Your task to perform on an android device: delete location history Image 0: 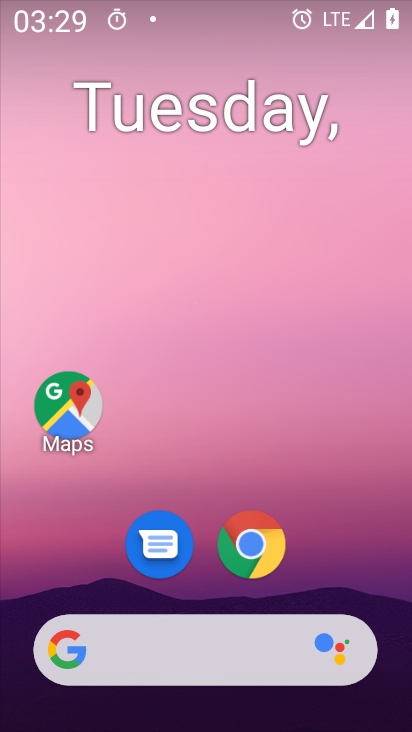
Step 0: drag from (339, 498) to (213, 11)
Your task to perform on an android device: delete location history Image 1: 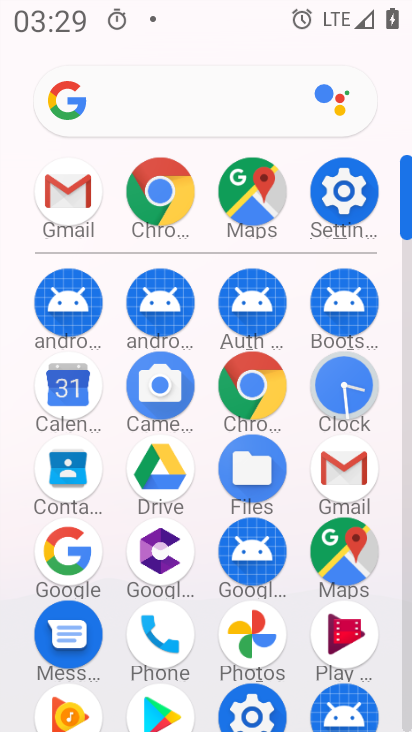
Step 1: drag from (11, 604) to (10, 253)
Your task to perform on an android device: delete location history Image 2: 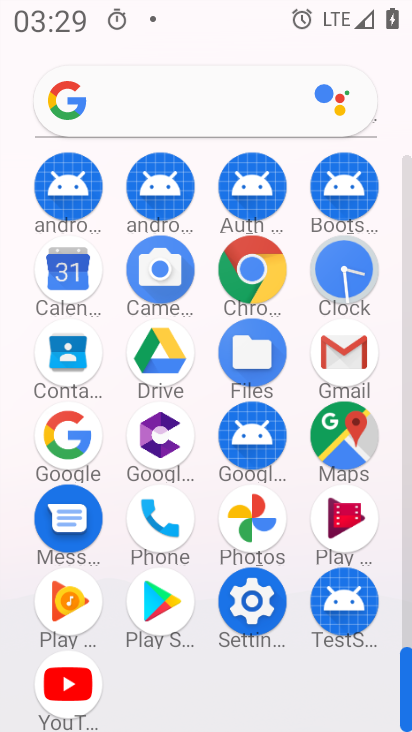
Step 2: click (254, 598)
Your task to perform on an android device: delete location history Image 3: 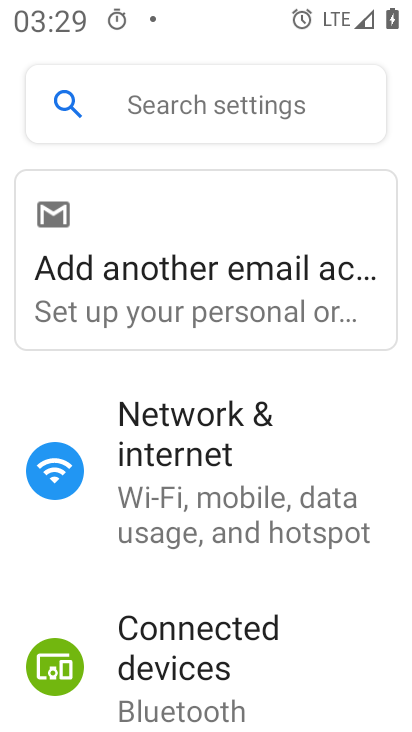
Step 3: drag from (311, 620) to (281, 143)
Your task to perform on an android device: delete location history Image 4: 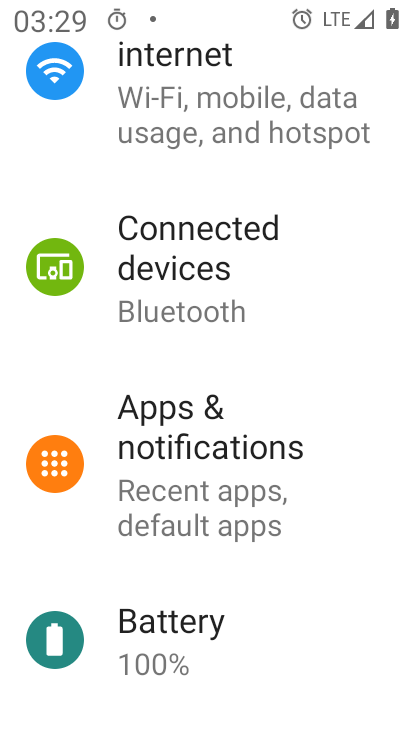
Step 4: drag from (264, 495) to (257, 149)
Your task to perform on an android device: delete location history Image 5: 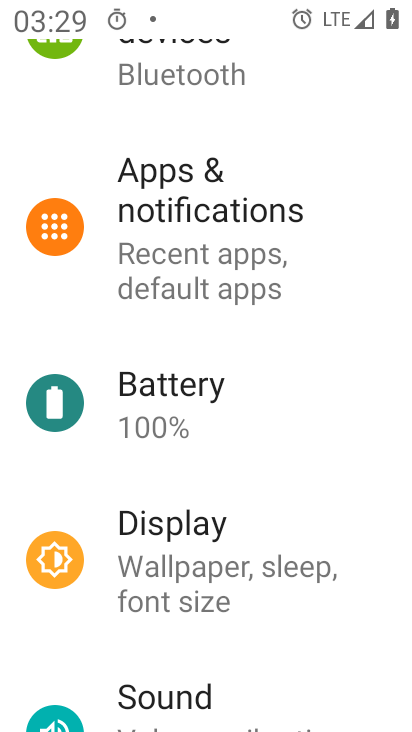
Step 5: drag from (262, 582) to (260, 152)
Your task to perform on an android device: delete location history Image 6: 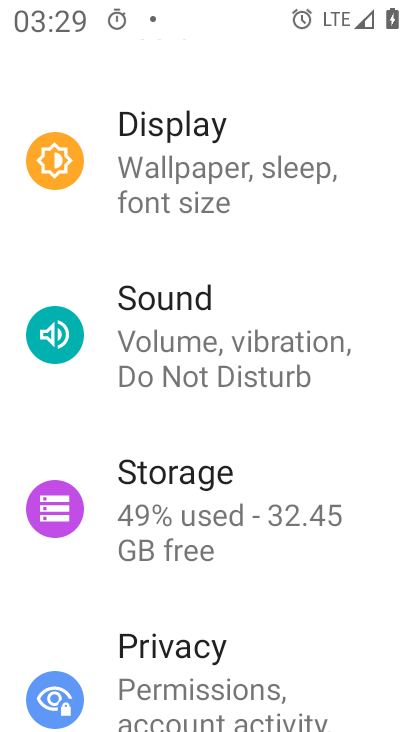
Step 6: drag from (263, 627) to (283, 177)
Your task to perform on an android device: delete location history Image 7: 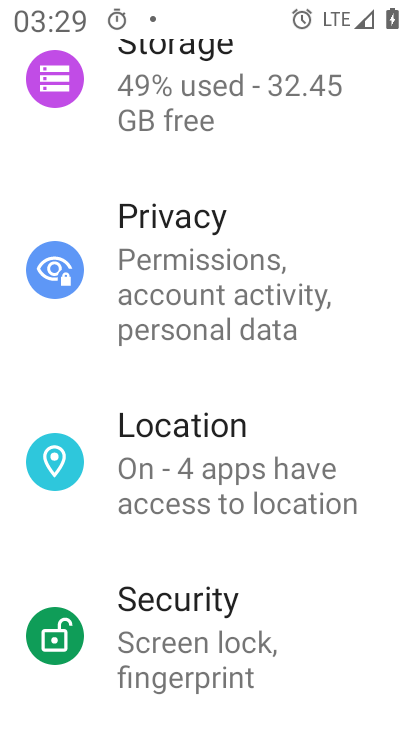
Step 7: click (200, 456)
Your task to perform on an android device: delete location history Image 8: 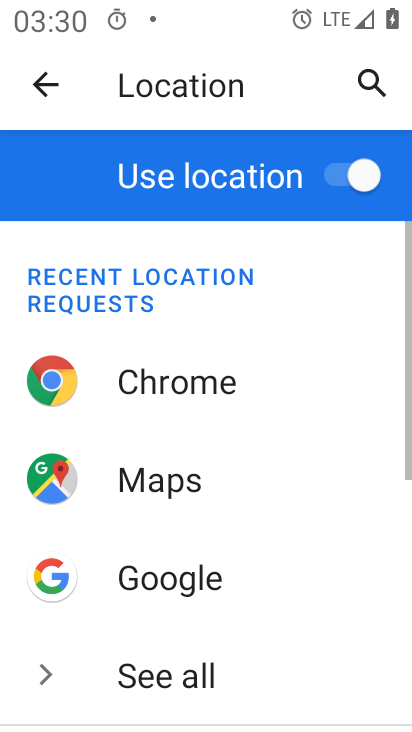
Step 8: drag from (294, 599) to (270, 155)
Your task to perform on an android device: delete location history Image 9: 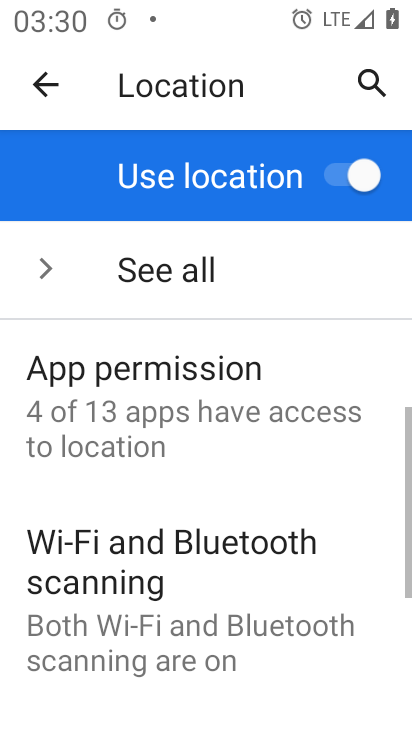
Step 9: drag from (236, 555) to (263, 150)
Your task to perform on an android device: delete location history Image 10: 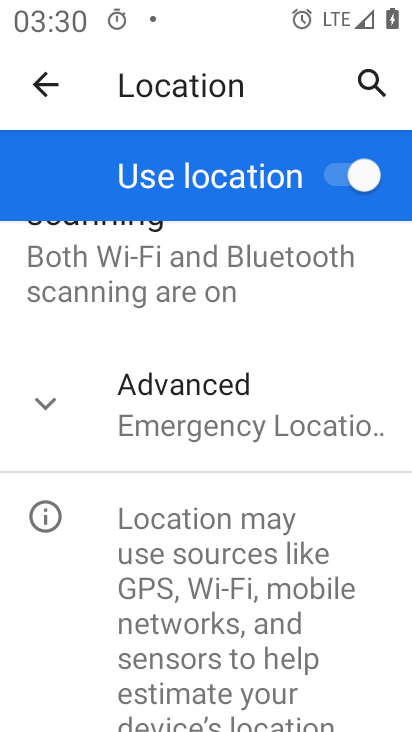
Step 10: click (70, 403)
Your task to perform on an android device: delete location history Image 11: 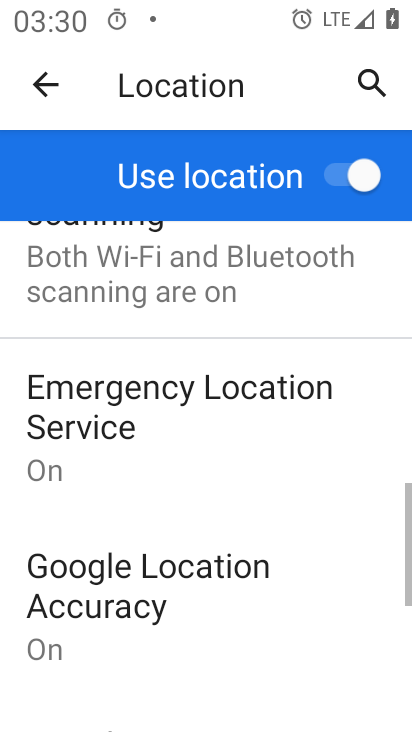
Step 11: drag from (388, 618) to (262, 198)
Your task to perform on an android device: delete location history Image 12: 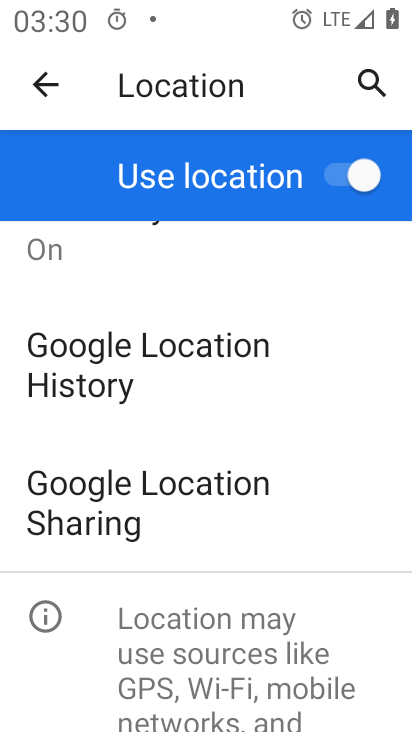
Step 12: drag from (257, 553) to (262, 226)
Your task to perform on an android device: delete location history Image 13: 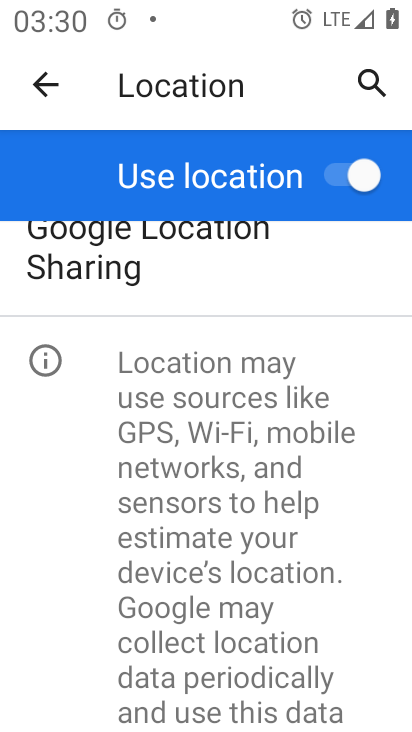
Step 13: drag from (255, 244) to (244, 686)
Your task to perform on an android device: delete location history Image 14: 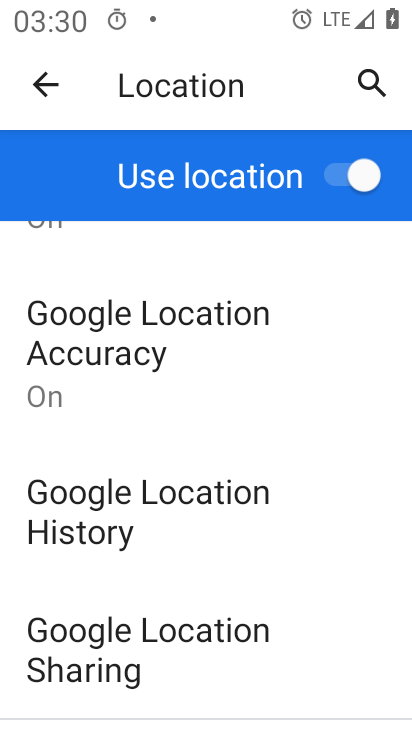
Step 14: click (203, 490)
Your task to perform on an android device: delete location history Image 15: 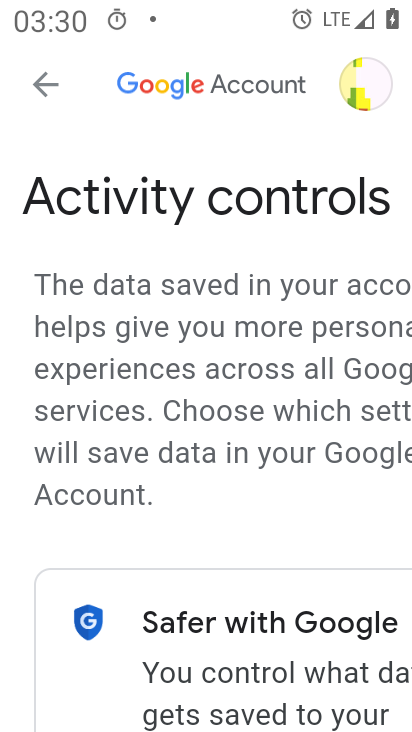
Step 15: drag from (182, 578) to (166, 194)
Your task to perform on an android device: delete location history Image 16: 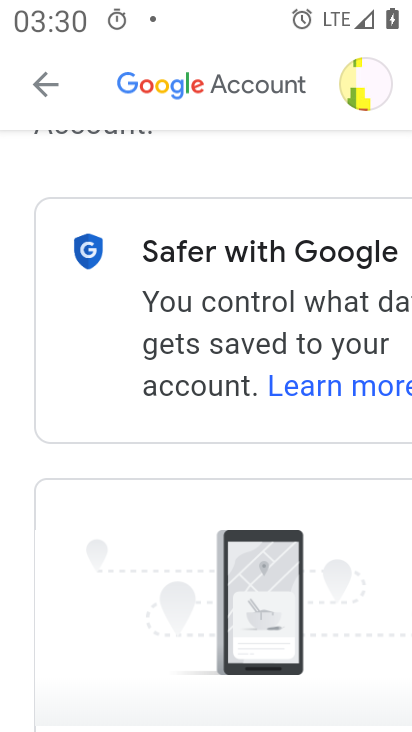
Step 16: drag from (195, 535) to (154, 147)
Your task to perform on an android device: delete location history Image 17: 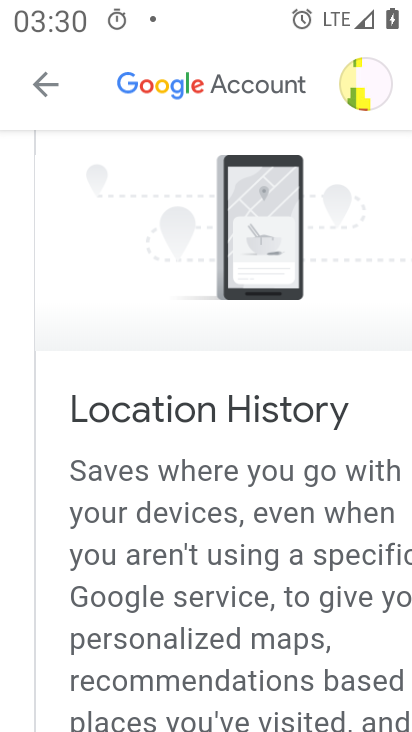
Step 17: drag from (148, 534) to (113, 191)
Your task to perform on an android device: delete location history Image 18: 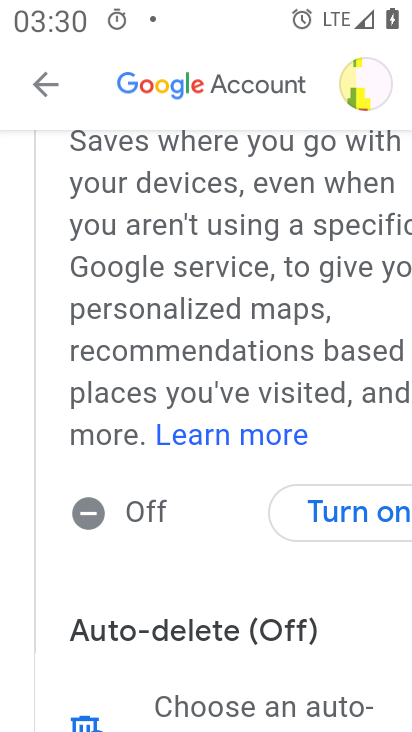
Step 18: drag from (323, 314) to (211, 217)
Your task to perform on an android device: delete location history Image 19: 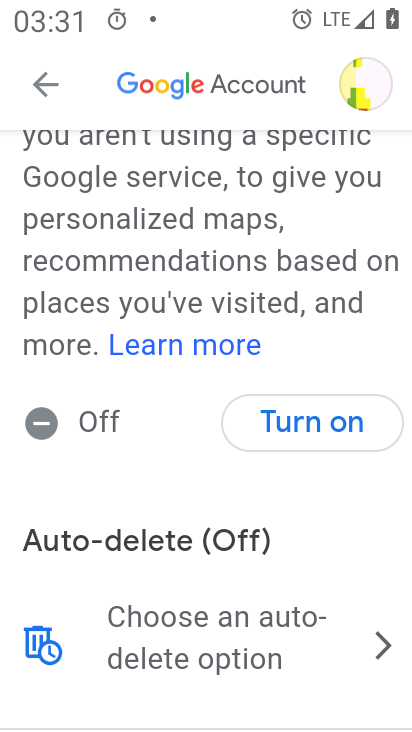
Step 19: drag from (264, 634) to (251, 226)
Your task to perform on an android device: delete location history Image 20: 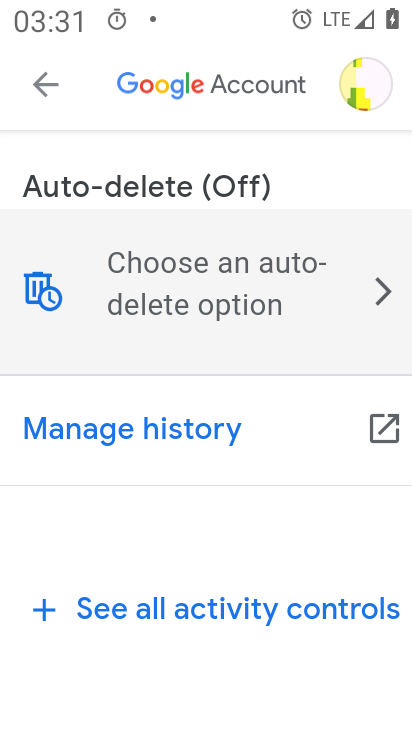
Step 20: drag from (261, 219) to (244, 412)
Your task to perform on an android device: delete location history Image 21: 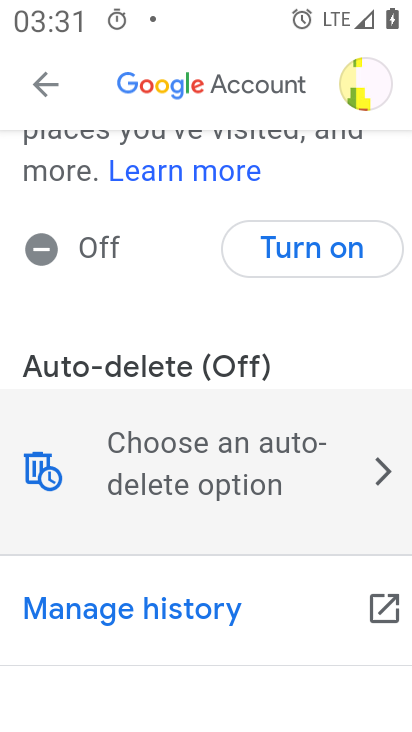
Step 21: click (72, 470)
Your task to perform on an android device: delete location history Image 22: 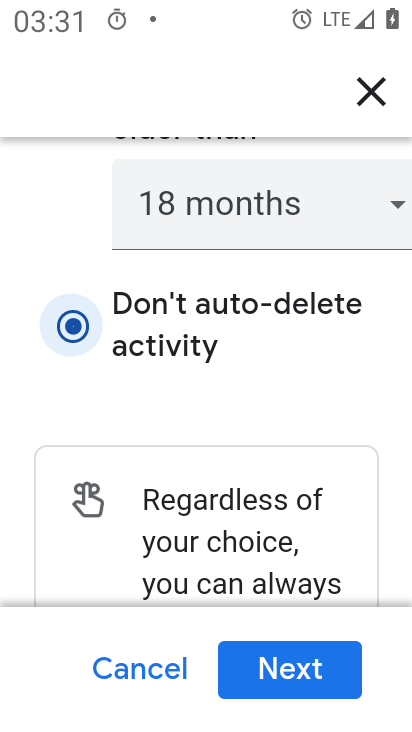
Step 22: click (281, 675)
Your task to perform on an android device: delete location history Image 23: 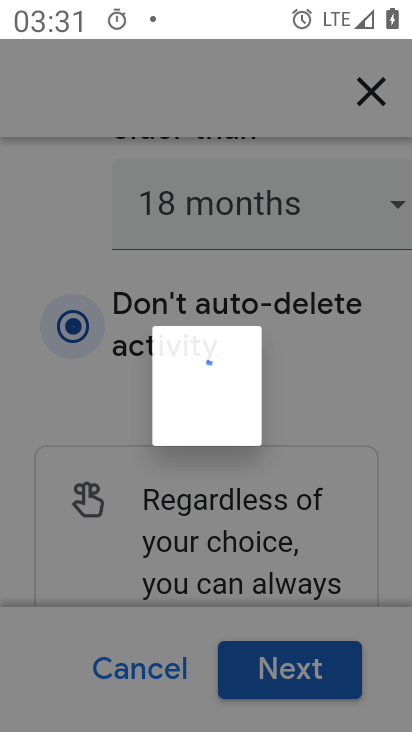
Step 23: click (278, 666)
Your task to perform on an android device: delete location history Image 24: 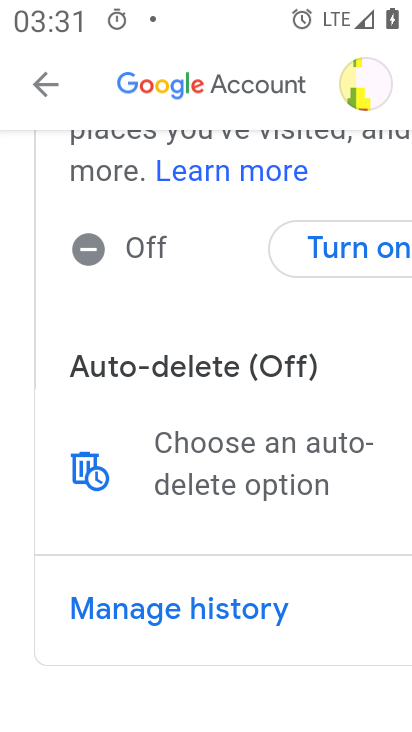
Step 24: task complete